Your task to perform on an android device: turn off notifications in google photos Image 0: 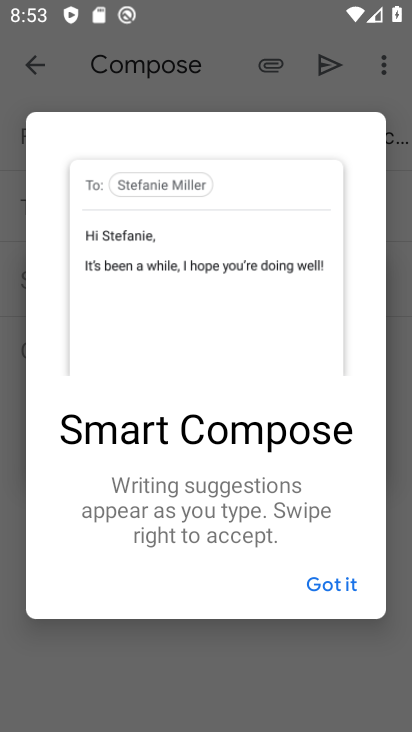
Step 0: press back button
Your task to perform on an android device: turn off notifications in google photos Image 1: 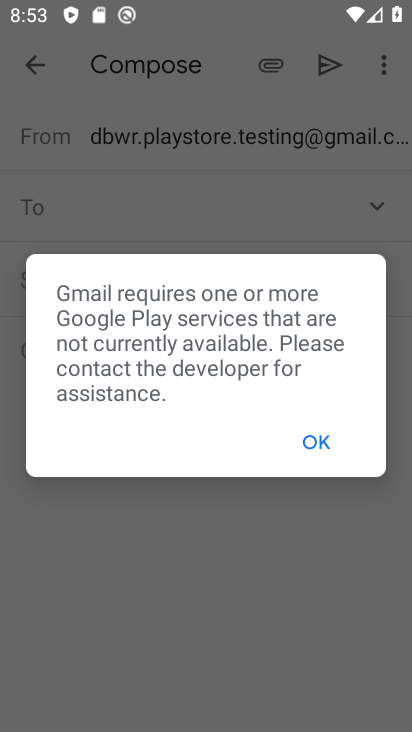
Step 1: press home button
Your task to perform on an android device: turn off notifications in google photos Image 2: 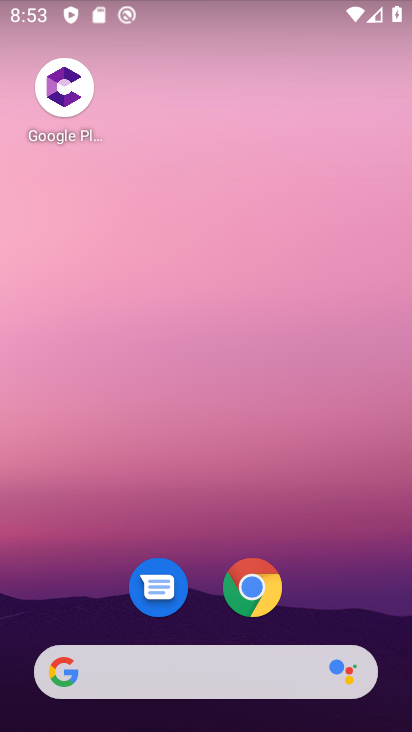
Step 2: drag from (85, 642) to (219, 90)
Your task to perform on an android device: turn off notifications in google photos Image 3: 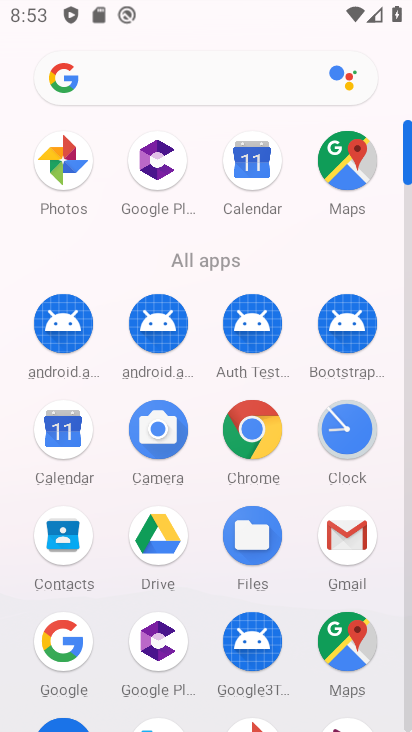
Step 3: drag from (77, 621) to (168, 411)
Your task to perform on an android device: turn off notifications in google photos Image 4: 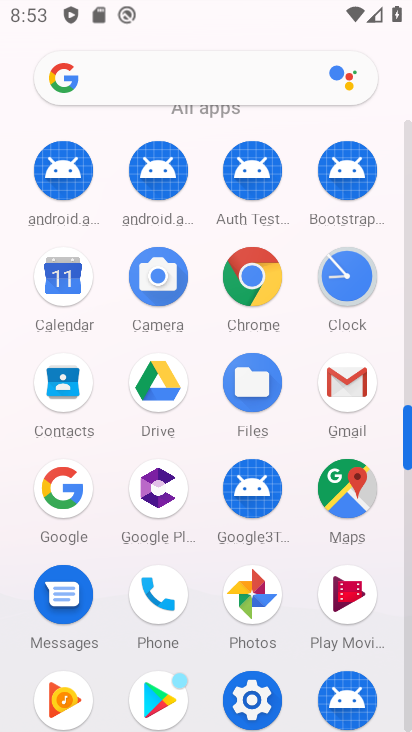
Step 4: click (258, 616)
Your task to perform on an android device: turn off notifications in google photos Image 5: 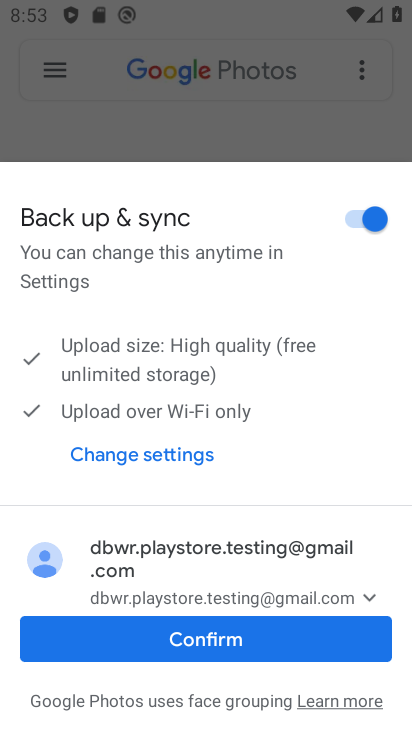
Step 5: click (235, 626)
Your task to perform on an android device: turn off notifications in google photos Image 6: 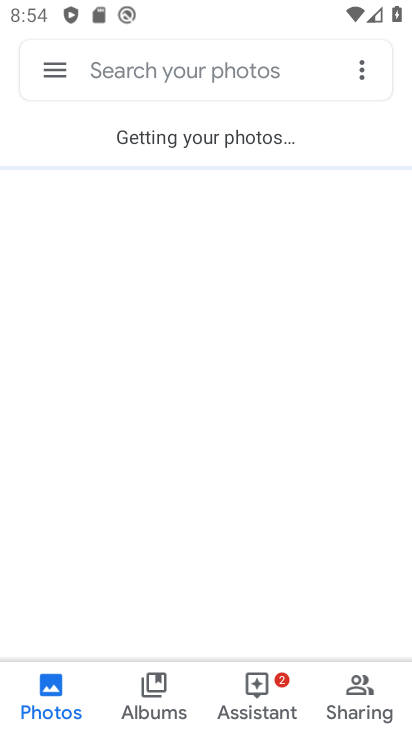
Step 6: click (73, 68)
Your task to perform on an android device: turn off notifications in google photos Image 7: 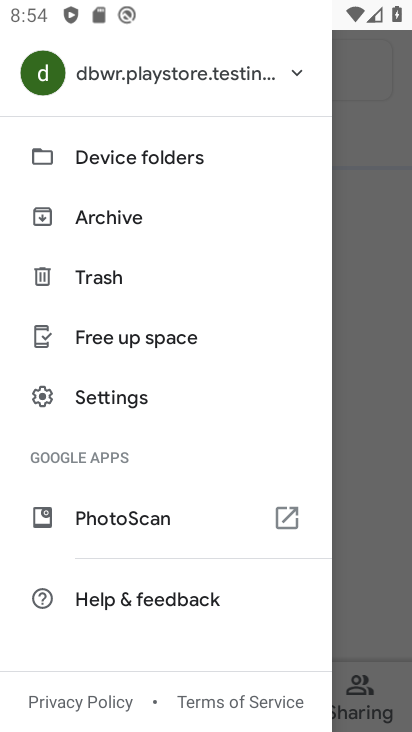
Step 7: click (137, 408)
Your task to perform on an android device: turn off notifications in google photos Image 8: 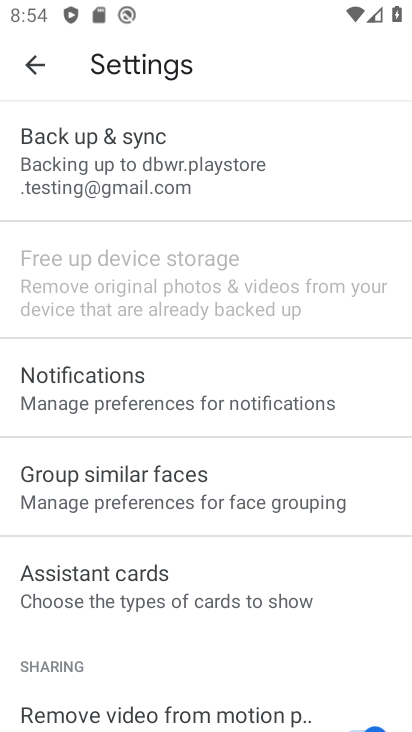
Step 8: click (185, 385)
Your task to perform on an android device: turn off notifications in google photos Image 9: 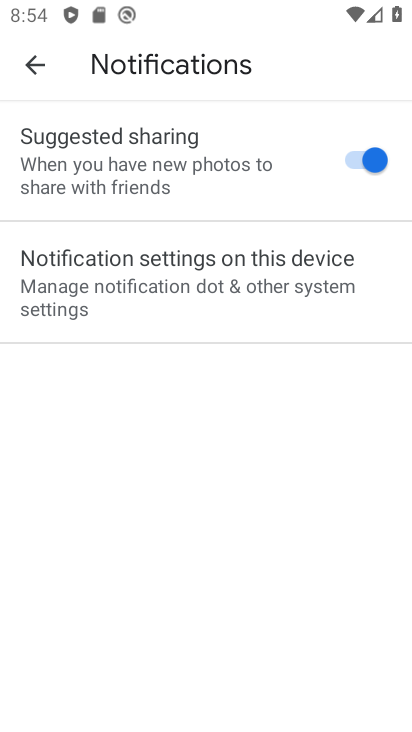
Step 9: click (264, 301)
Your task to perform on an android device: turn off notifications in google photos Image 10: 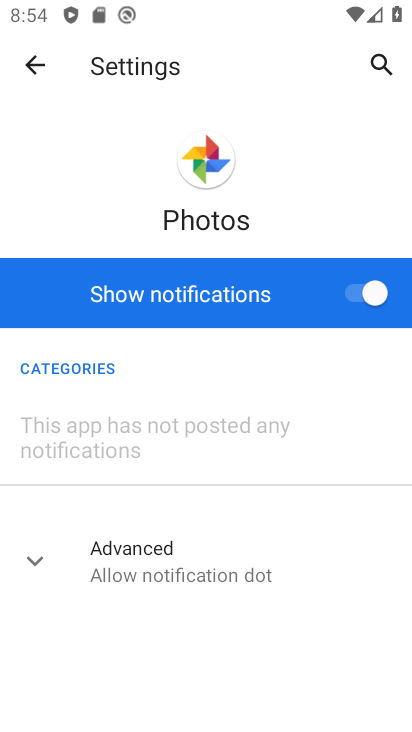
Step 10: click (342, 288)
Your task to perform on an android device: turn off notifications in google photos Image 11: 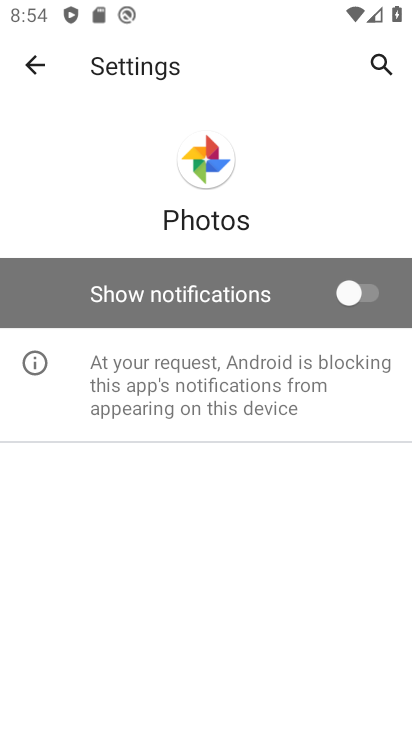
Step 11: task complete